Your task to perform on an android device: open app "VLC for Android" (install if not already installed) Image 0: 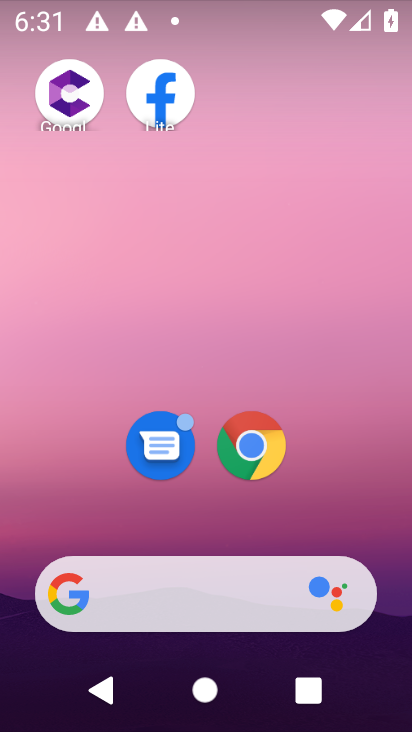
Step 0: drag from (400, 606) to (234, 63)
Your task to perform on an android device: open app "VLC for Android" (install if not already installed) Image 1: 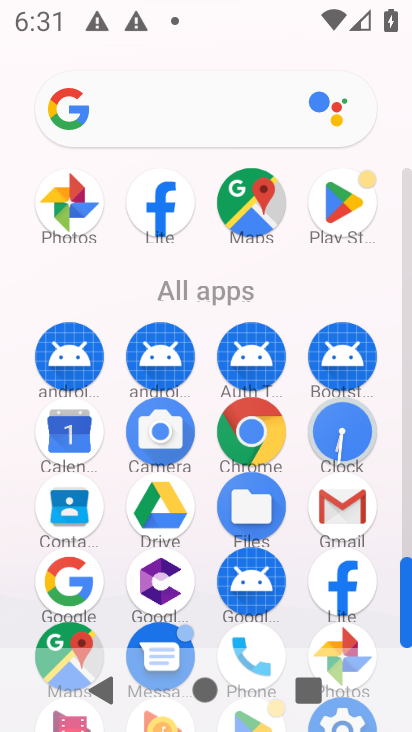
Step 1: click (339, 193)
Your task to perform on an android device: open app "VLC for Android" (install if not already installed) Image 2: 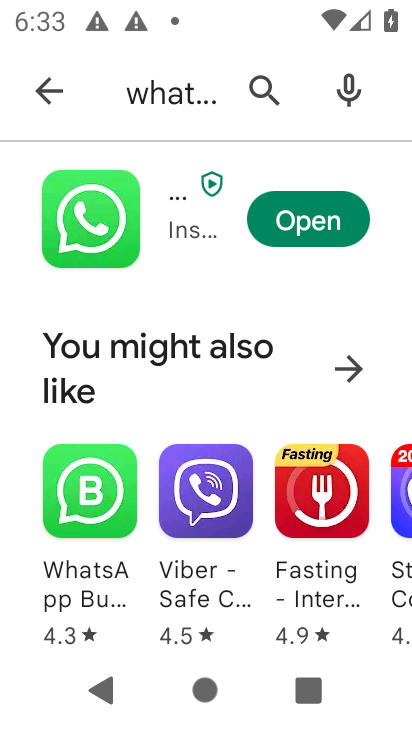
Step 2: press back button
Your task to perform on an android device: open app "VLC for Android" (install if not already installed) Image 3: 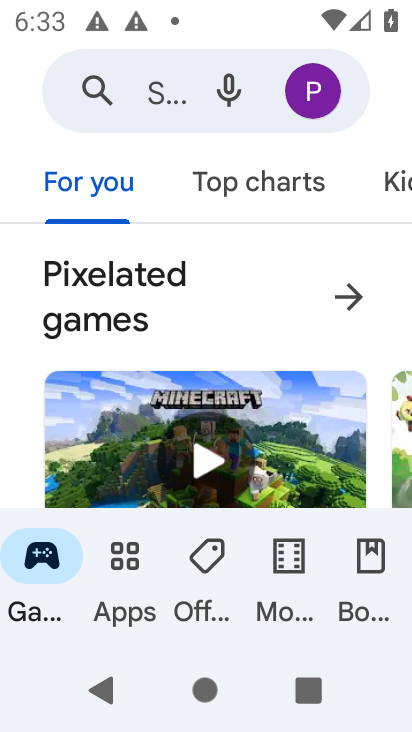
Step 3: click (157, 85)
Your task to perform on an android device: open app "VLC for Android" (install if not already installed) Image 4: 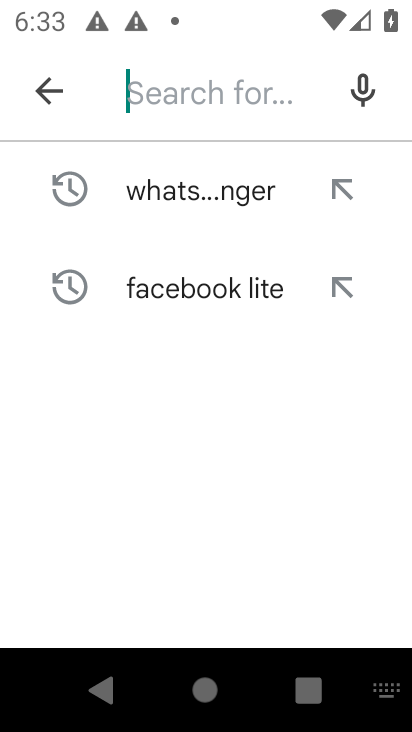
Step 4: type "VLC for Android"
Your task to perform on an android device: open app "VLC for Android" (install if not already installed) Image 5: 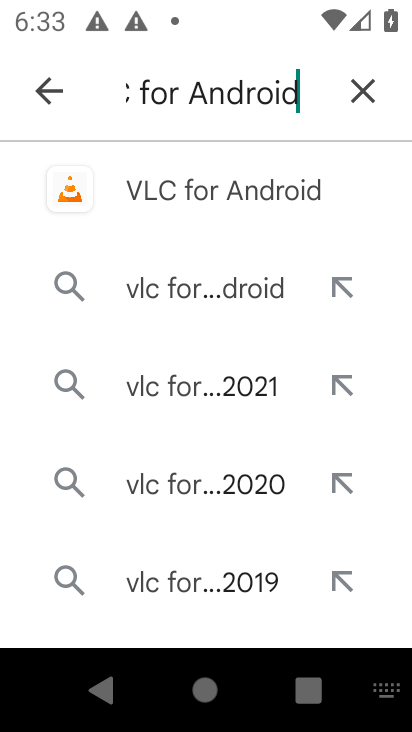
Step 5: click (196, 194)
Your task to perform on an android device: open app "VLC for Android" (install if not already installed) Image 6: 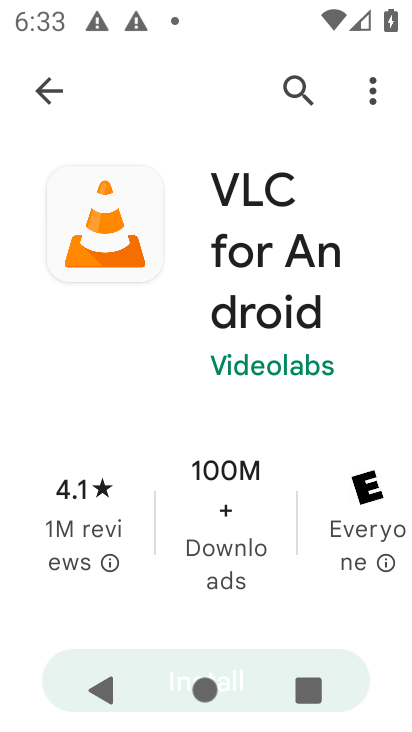
Step 6: task complete